Your task to perform on an android device: Open Maps and search for coffee Image 0: 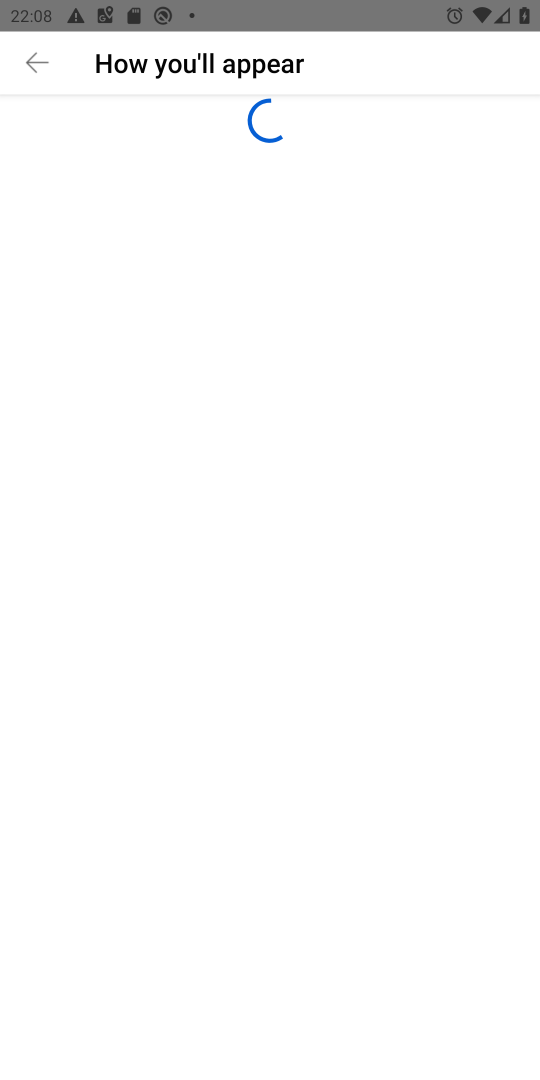
Step 0: press home button
Your task to perform on an android device: Open Maps and search for coffee Image 1: 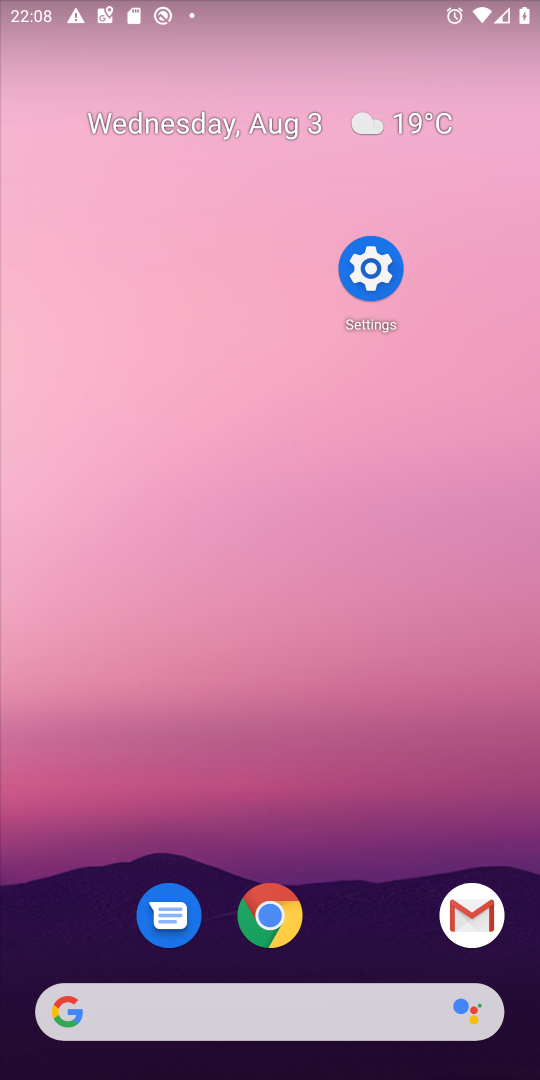
Step 1: click (174, 1018)
Your task to perform on an android device: Open Maps and search for coffee Image 2: 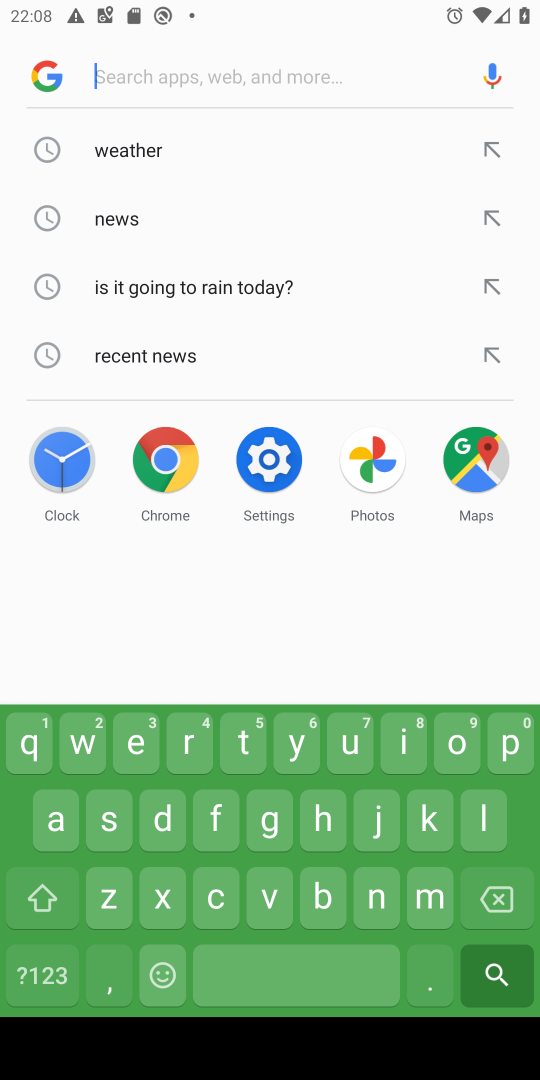
Step 2: click (468, 472)
Your task to perform on an android device: Open Maps and search for coffee Image 3: 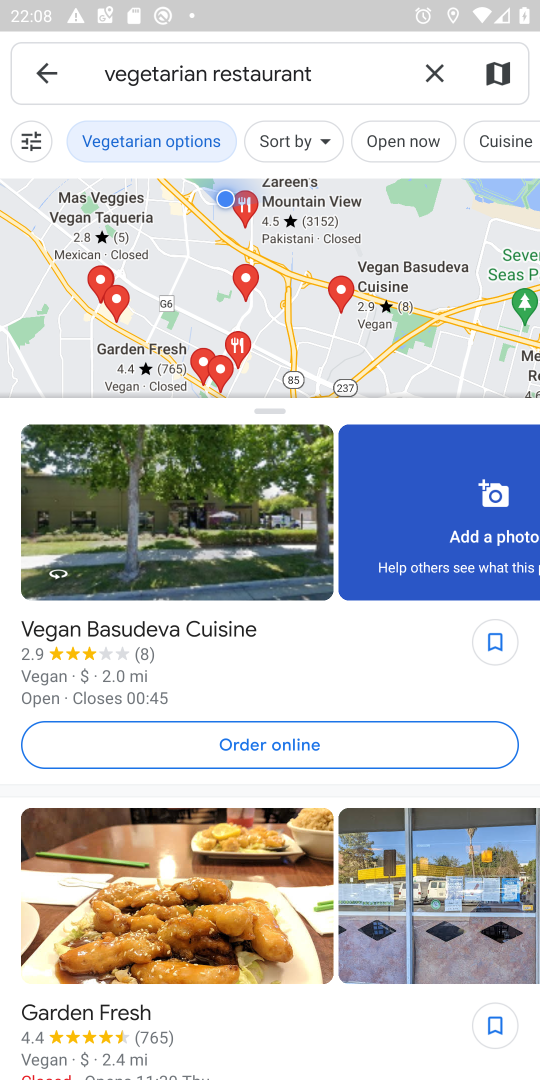
Step 3: click (415, 82)
Your task to perform on an android device: Open Maps and search for coffee Image 4: 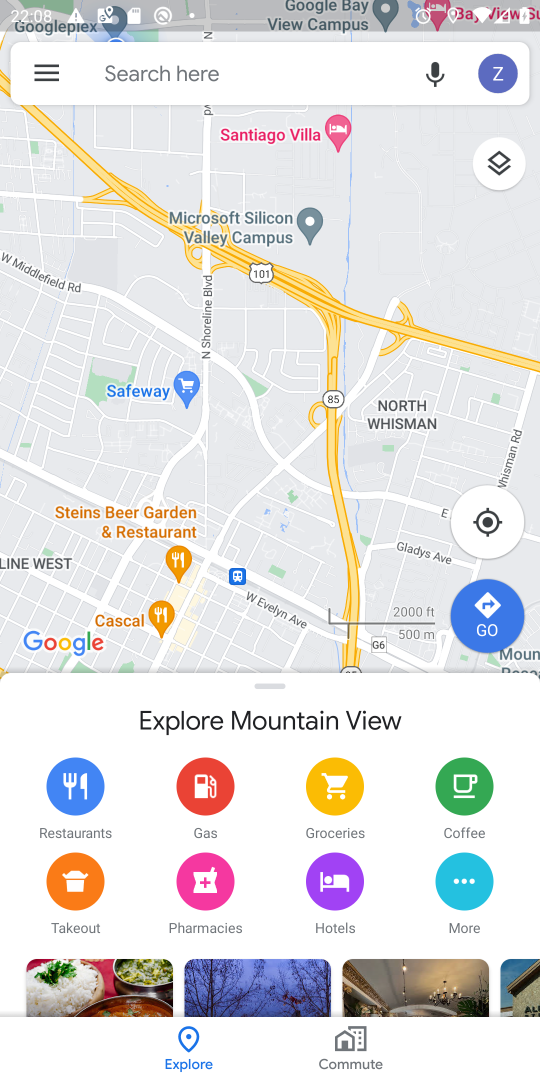
Step 4: click (197, 85)
Your task to perform on an android device: Open Maps and search for coffee Image 5: 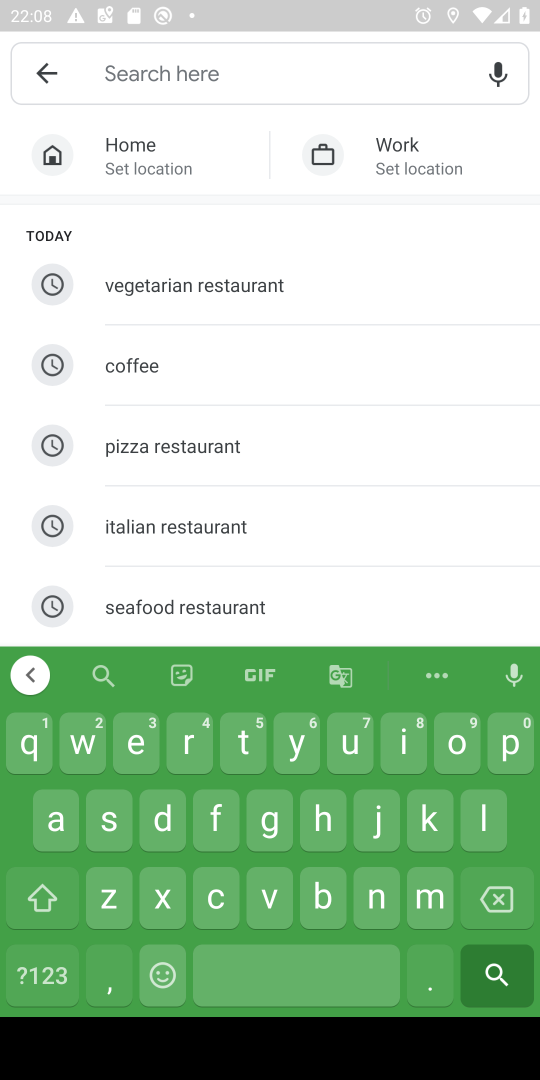
Step 5: click (159, 375)
Your task to perform on an android device: Open Maps and search for coffee Image 6: 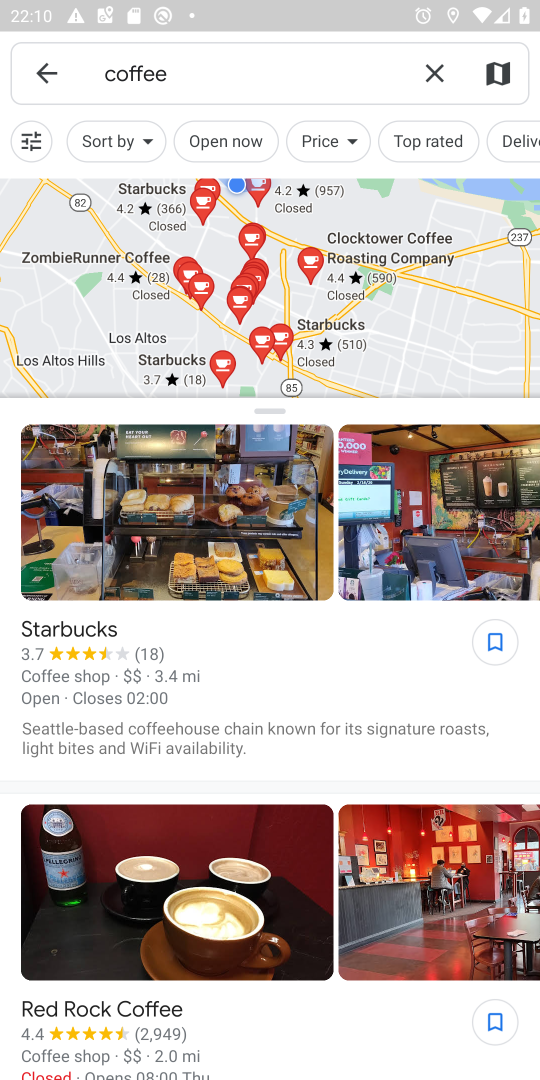
Step 6: task complete